Your task to perform on an android device: Open eBay Image 0: 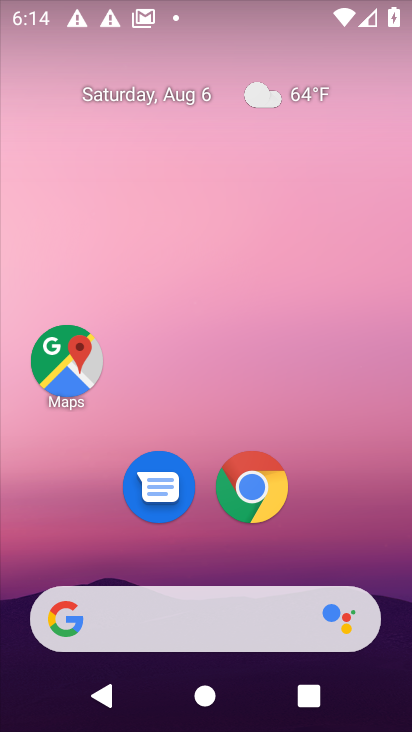
Step 0: click (265, 480)
Your task to perform on an android device: Open eBay Image 1: 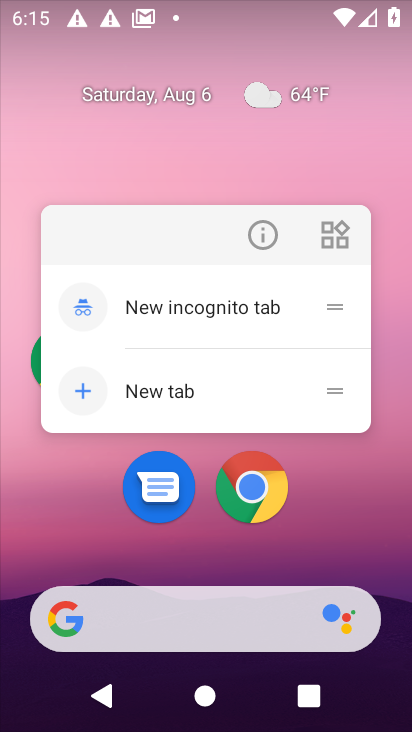
Step 1: click (246, 493)
Your task to perform on an android device: Open eBay Image 2: 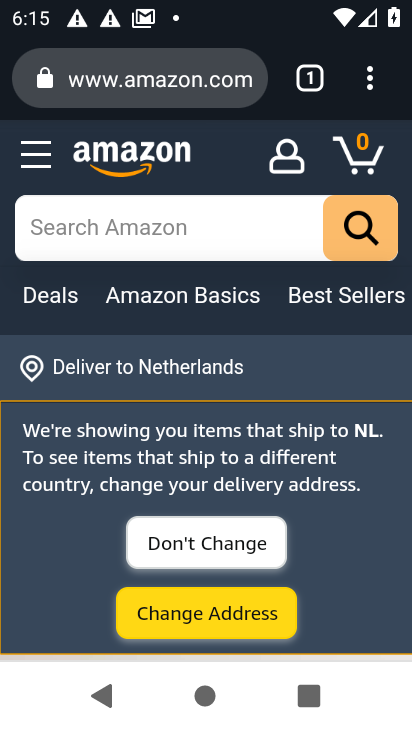
Step 2: click (308, 65)
Your task to perform on an android device: Open eBay Image 3: 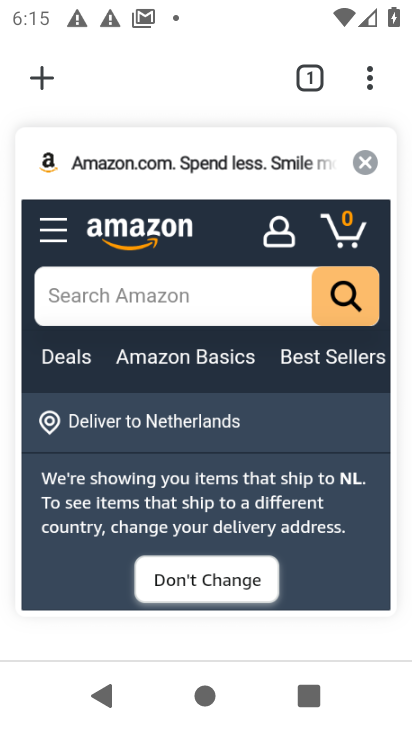
Step 3: click (51, 70)
Your task to perform on an android device: Open eBay Image 4: 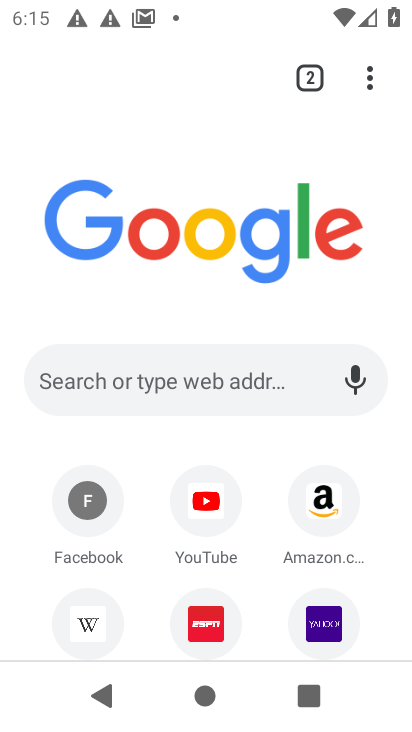
Step 4: drag from (249, 584) to (293, 124)
Your task to perform on an android device: Open eBay Image 5: 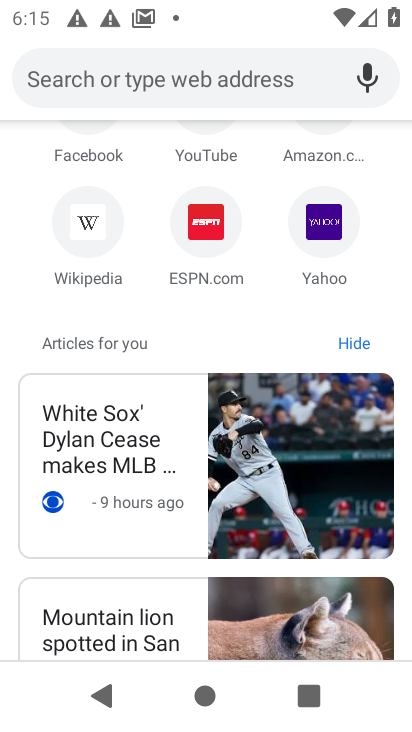
Step 5: drag from (235, 231) to (194, 612)
Your task to perform on an android device: Open eBay Image 6: 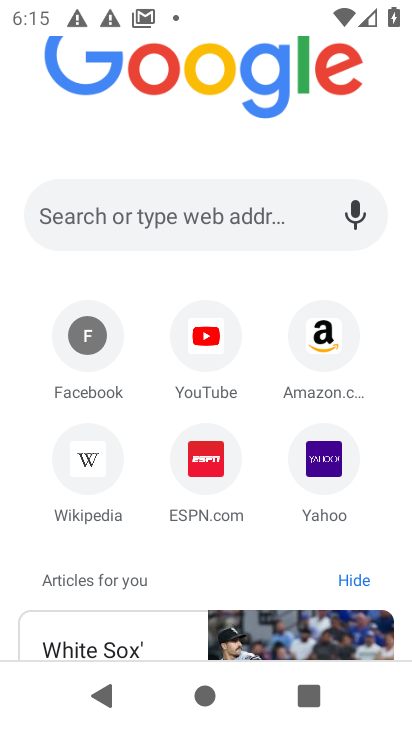
Step 6: click (185, 200)
Your task to perform on an android device: Open eBay Image 7: 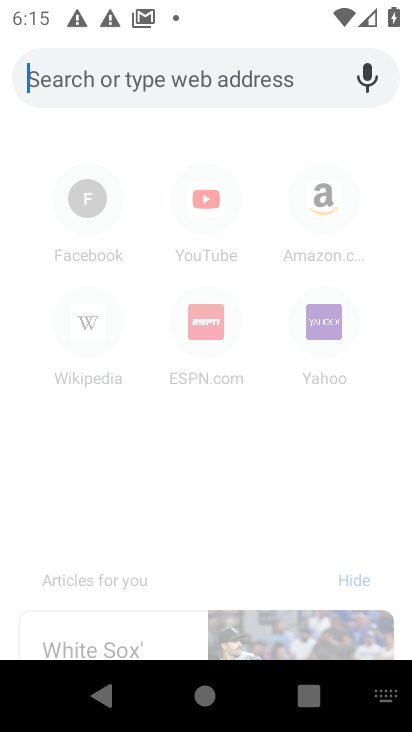
Step 7: type "ebay"
Your task to perform on an android device: Open eBay Image 8: 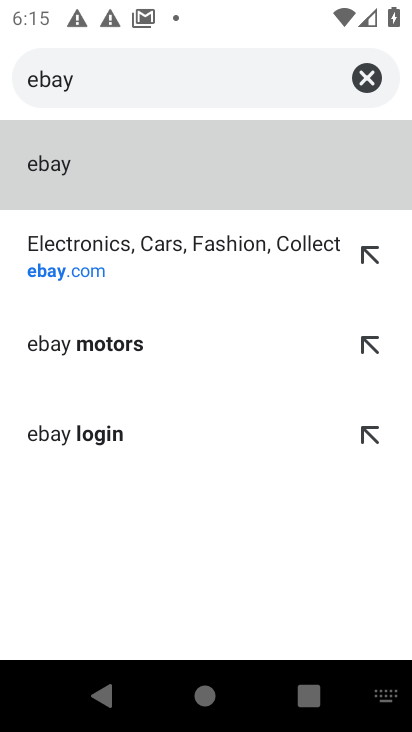
Step 8: click (98, 255)
Your task to perform on an android device: Open eBay Image 9: 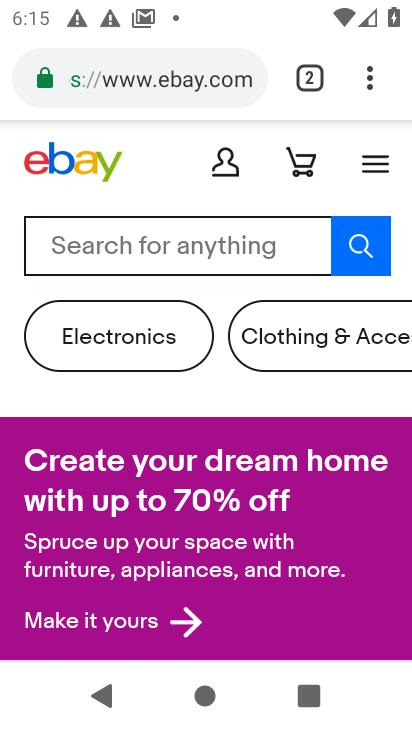
Step 9: task complete